Your task to perform on an android device: toggle javascript in the chrome app Image 0: 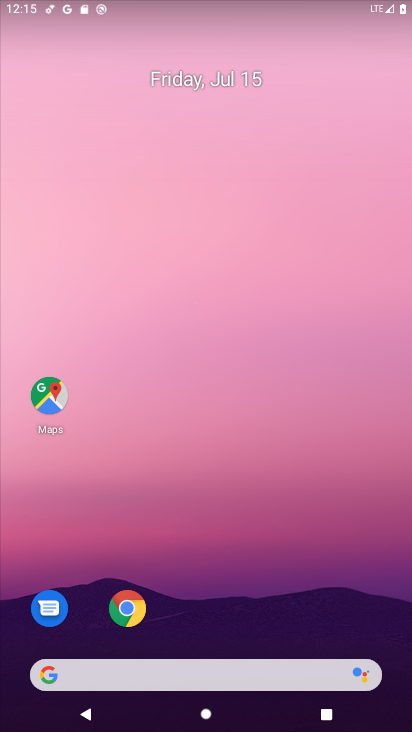
Step 0: click (132, 609)
Your task to perform on an android device: toggle javascript in the chrome app Image 1: 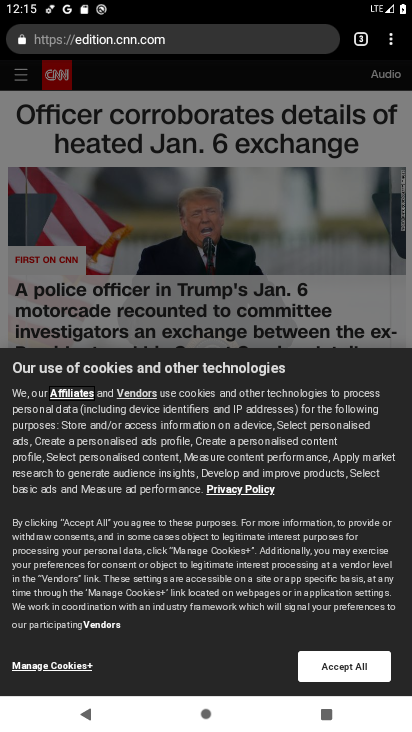
Step 1: click (391, 44)
Your task to perform on an android device: toggle javascript in the chrome app Image 2: 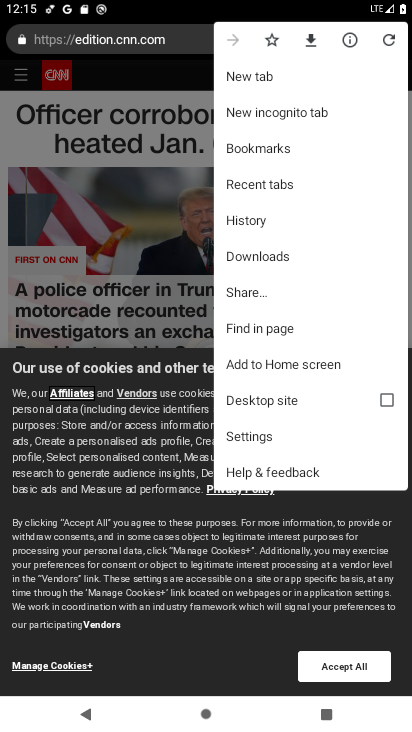
Step 2: click (259, 435)
Your task to perform on an android device: toggle javascript in the chrome app Image 3: 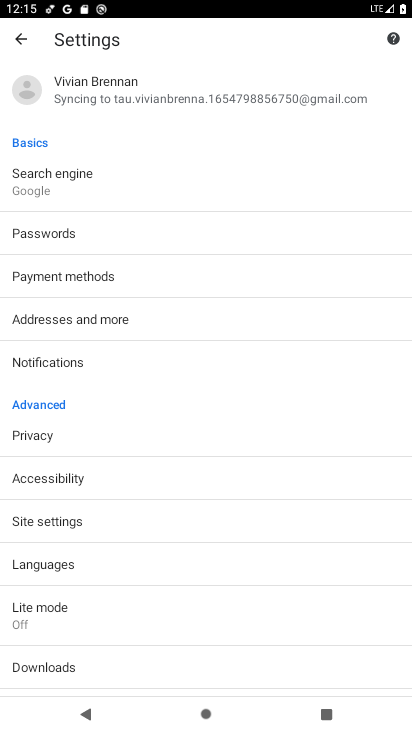
Step 3: click (38, 521)
Your task to perform on an android device: toggle javascript in the chrome app Image 4: 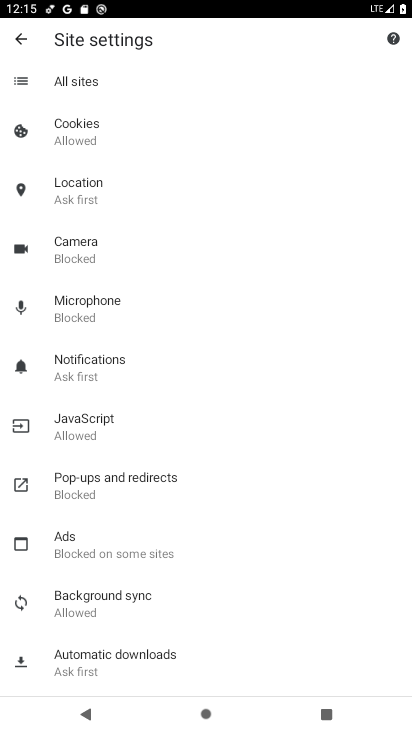
Step 4: click (66, 418)
Your task to perform on an android device: toggle javascript in the chrome app Image 5: 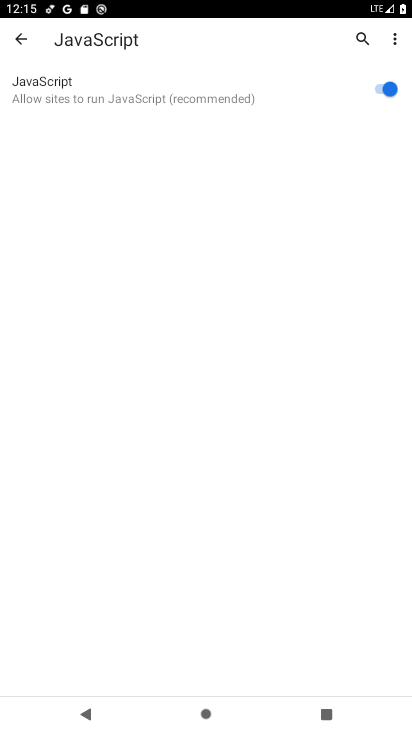
Step 5: click (394, 85)
Your task to perform on an android device: toggle javascript in the chrome app Image 6: 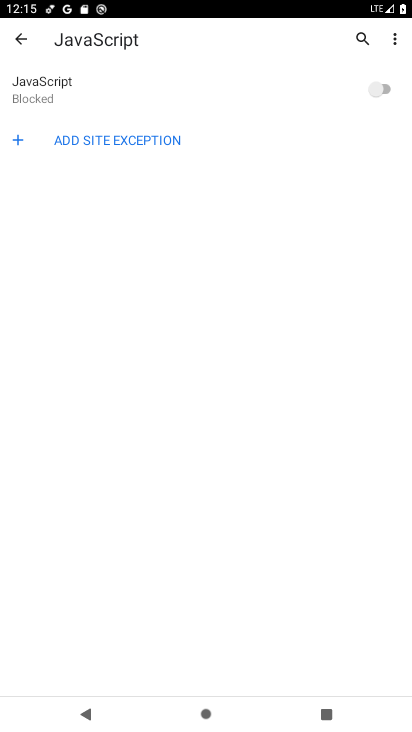
Step 6: task complete